Your task to perform on an android device: turn pop-ups on in chrome Image 0: 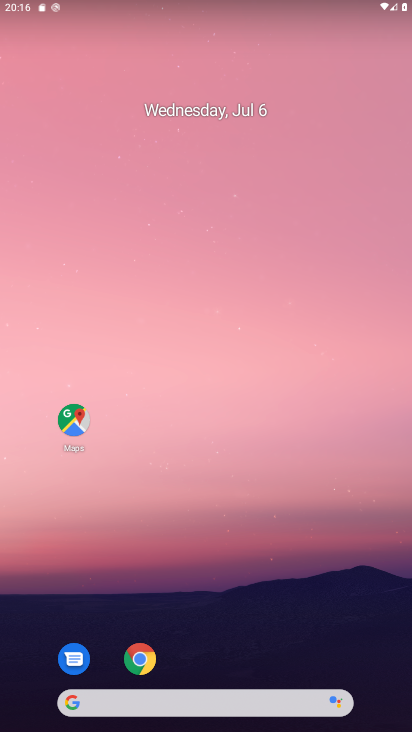
Step 0: click (137, 662)
Your task to perform on an android device: turn pop-ups on in chrome Image 1: 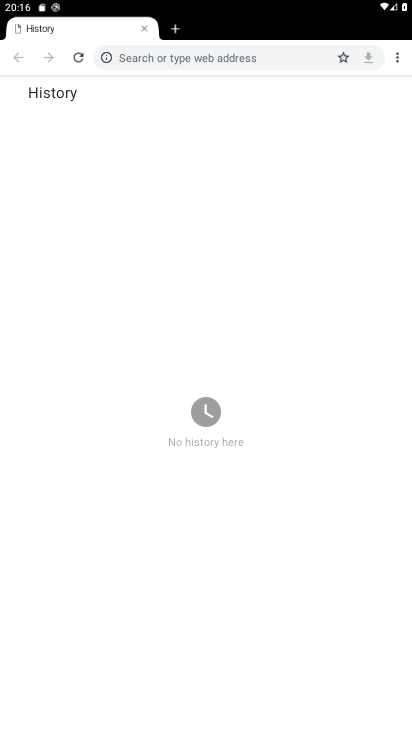
Step 1: click (404, 60)
Your task to perform on an android device: turn pop-ups on in chrome Image 2: 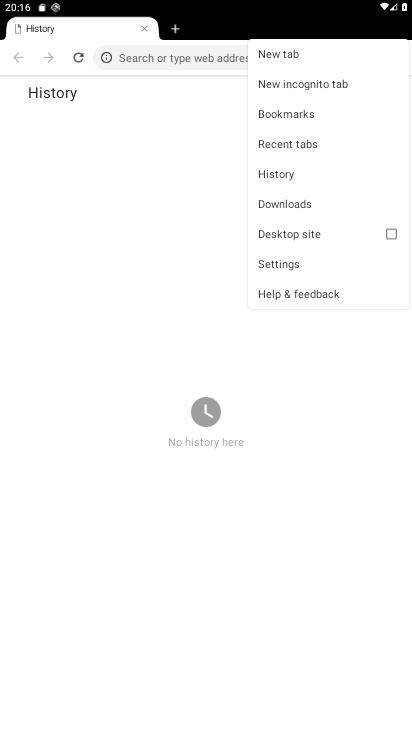
Step 2: click (284, 260)
Your task to perform on an android device: turn pop-ups on in chrome Image 3: 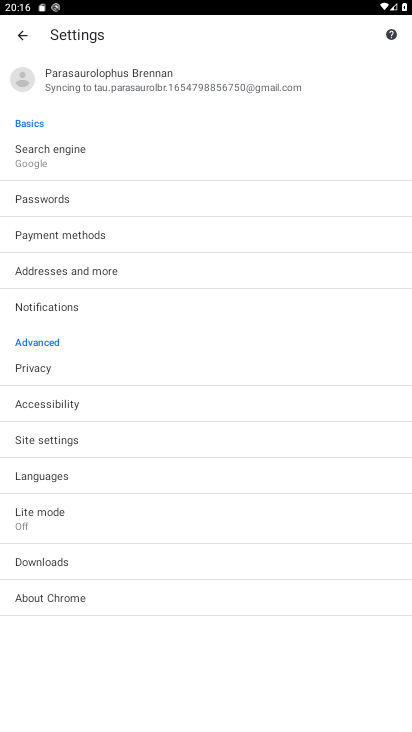
Step 3: click (110, 430)
Your task to perform on an android device: turn pop-ups on in chrome Image 4: 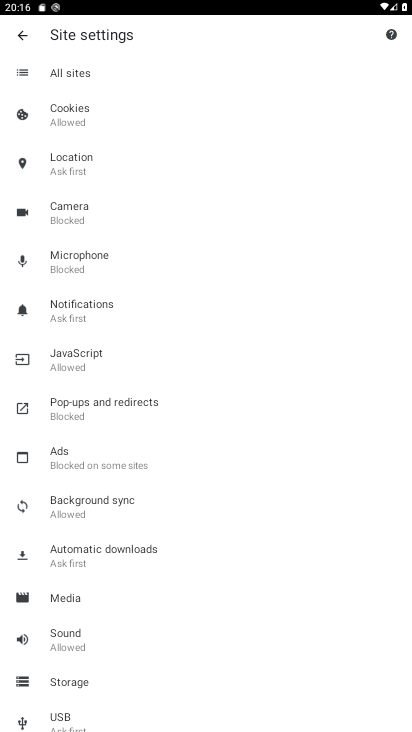
Step 4: click (134, 414)
Your task to perform on an android device: turn pop-ups on in chrome Image 5: 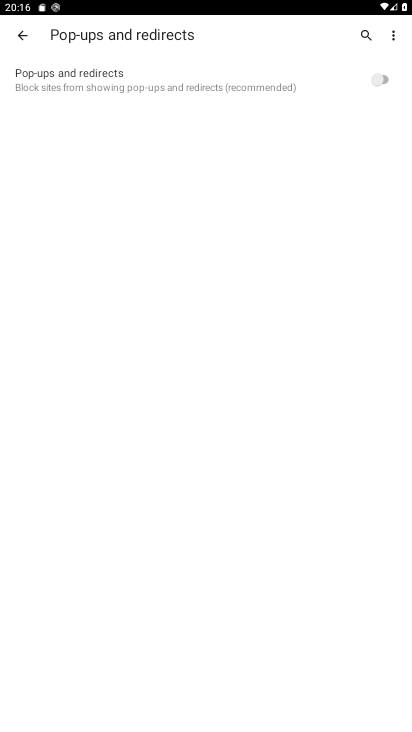
Step 5: click (387, 81)
Your task to perform on an android device: turn pop-ups on in chrome Image 6: 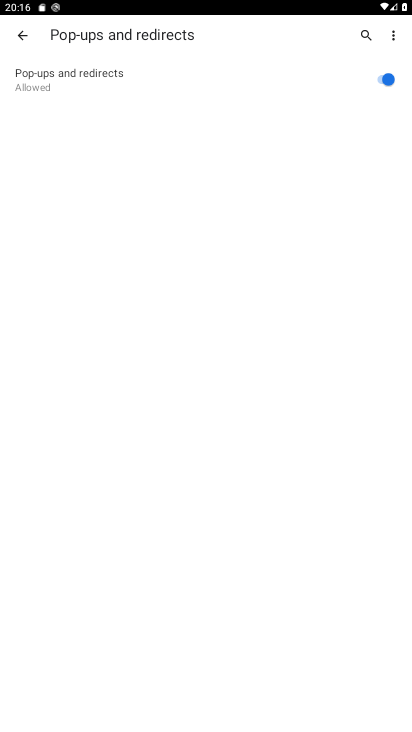
Step 6: task complete